Your task to perform on an android device: make emails show in primary in the gmail app Image 0: 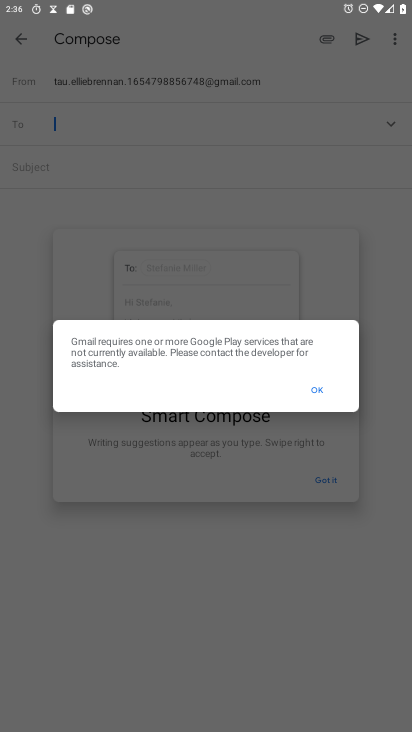
Step 0: press home button
Your task to perform on an android device: make emails show in primary in the gmail app Image 1: 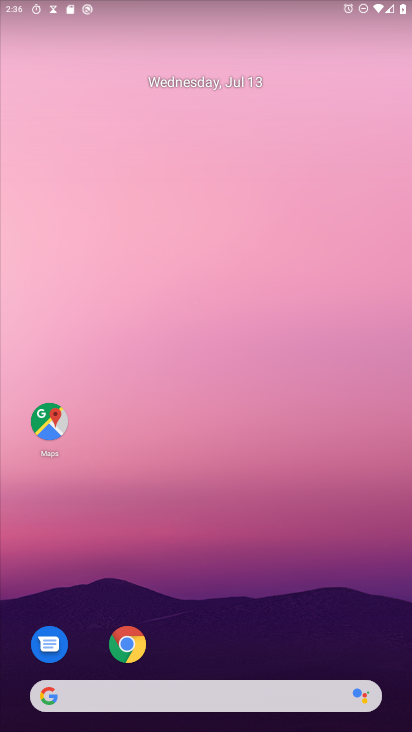
Step 1: drag from (200, 618) to (197, 120)
Your task to perform on an android device: make emails show in primary in the gmail app Image 2: 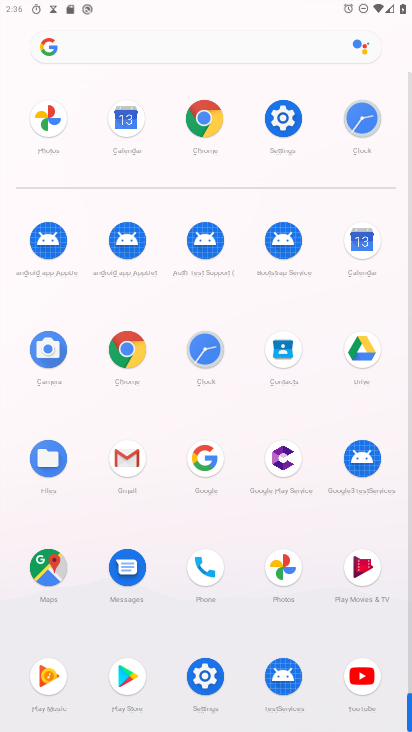
Step 2: click (121, 458)
Your task to perform on an android device: make emails show in primary in the gmail app Image 3: 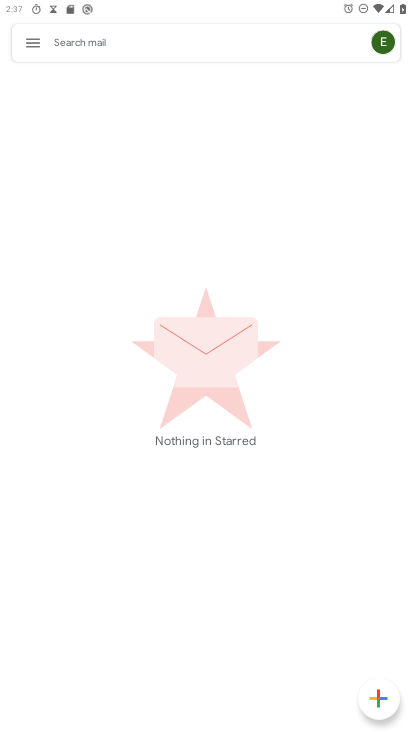
Step 3: click (32, 43)
Your task to perform on an android device: make emails show in primary in the gmail app Image 4: 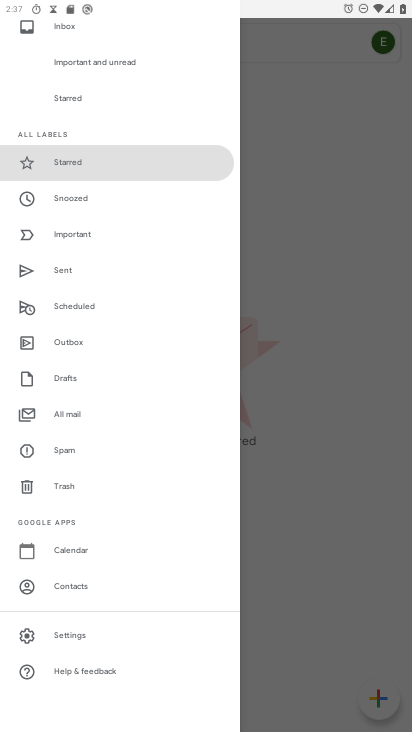
Step 4: click (64, 639)
Your task to perform on an android device: make emails show in primary in the gmail app Image 5: 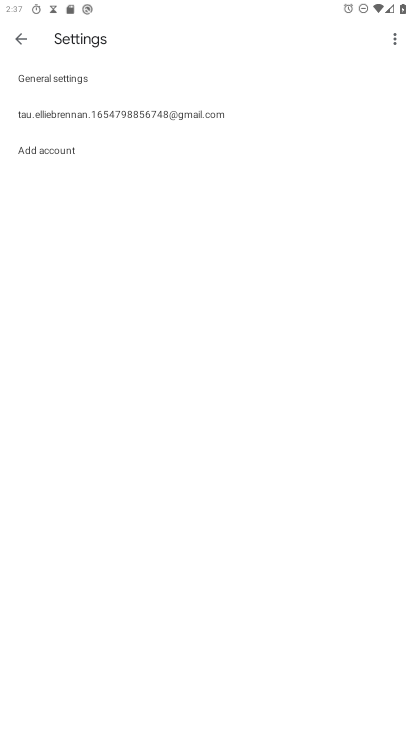
Step 5: click (40, 114)
Your task to perform on an android device: make emails show in primary in the gmail app Image 6: 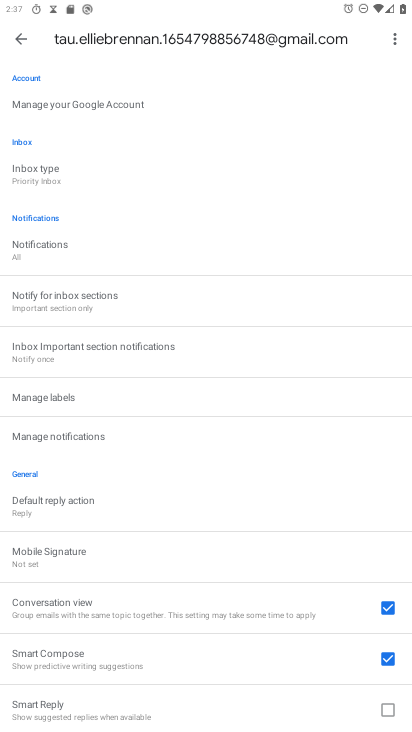
Step 6: click (39, 171)
Your task to perform on an android device: make emails show in primary in the gmail app Image 7: 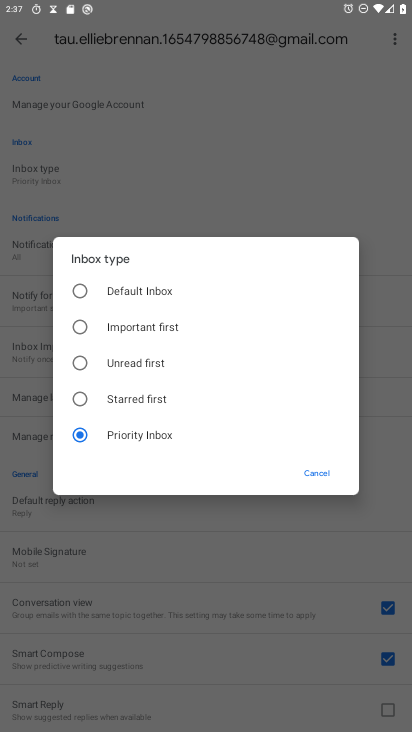
Step 7: click (138, 293)
Your task to perform on an android device: make emails show in primary in the gmail app Image 8: 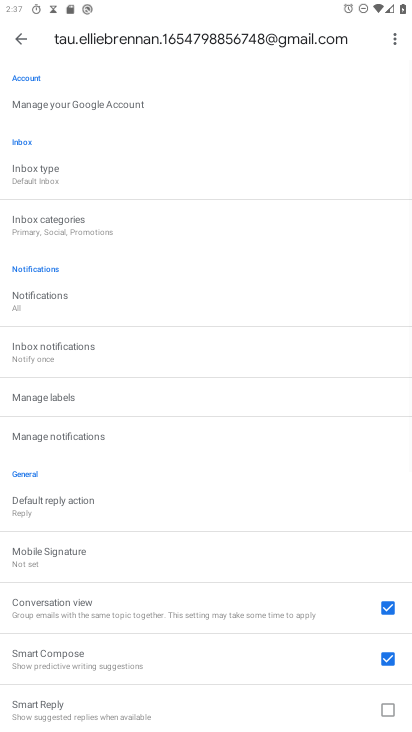
Step 8: click (37, 221)
Your task to perform on an android device: make emails show in primary in the gmail app Image 9: 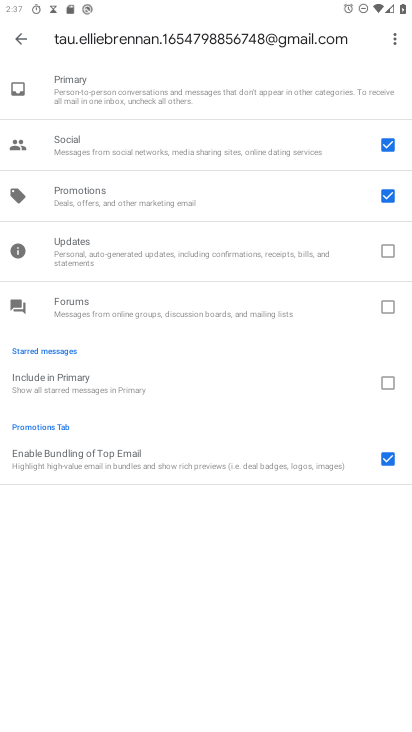
Step 9: click (389, 189)
Your task to perform on an android device: make emails show in primary in the gmail app Image 10: 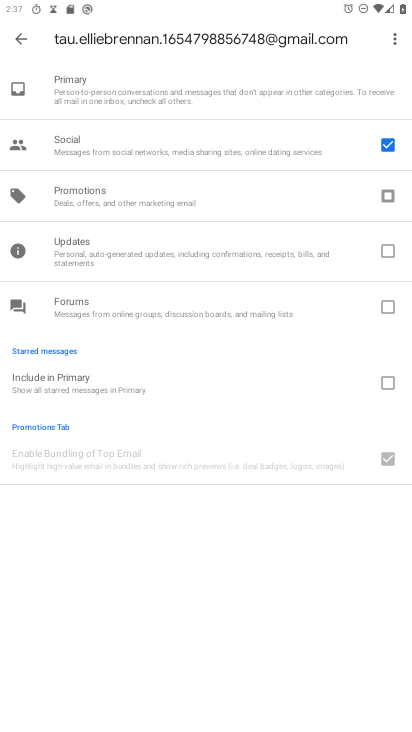
Step 10: click (389, 140)
Your task to perform on an android device: make emails show in primary in the gmail app Image 11: 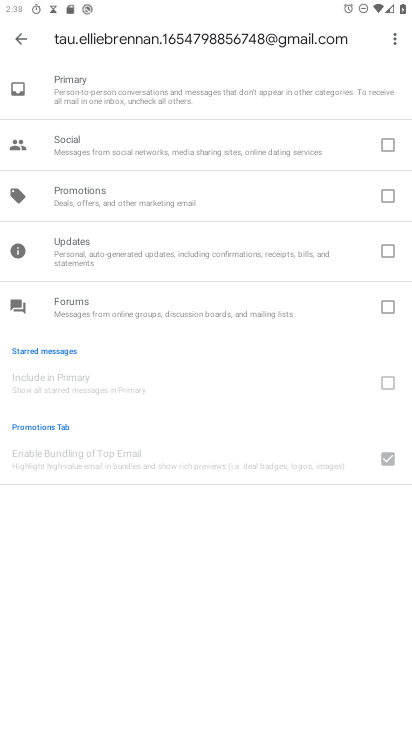
Step 11: task complete